Your task to perform on an android device: change keyboard looks Image 0: 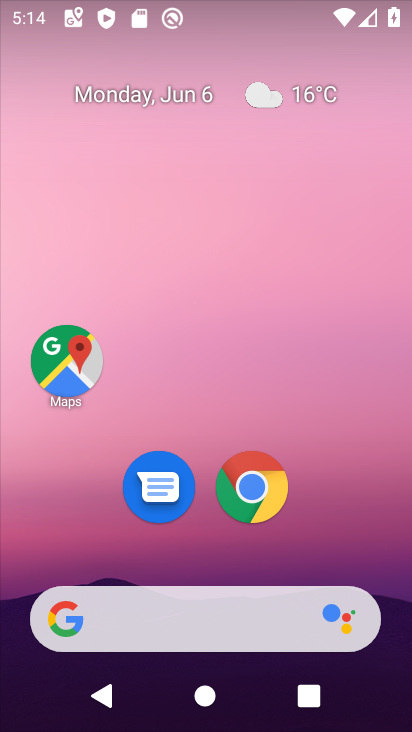
Step 0: drag from (324, 511) to (341, 10)
Your task to perform on an android device: change keyboard looks Image 1: 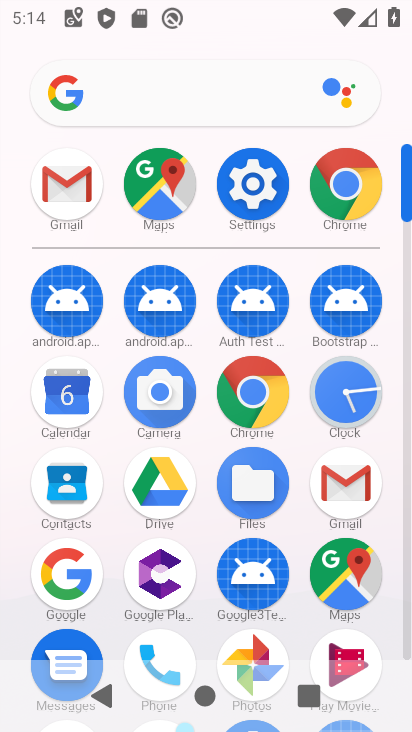
Step 1: click (245, 191)
Your task to perform on an android device: change keyboard looks Image 2: 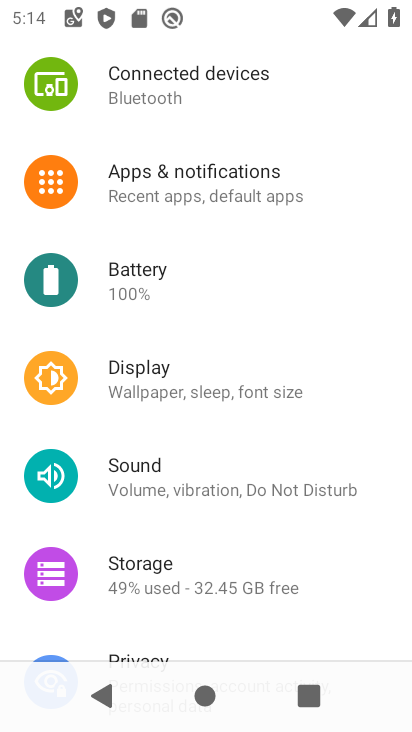
Step 2: drag from (229, 550) to (292, 19)
Your task to perform on an android device: change keyboard looks Image 3: 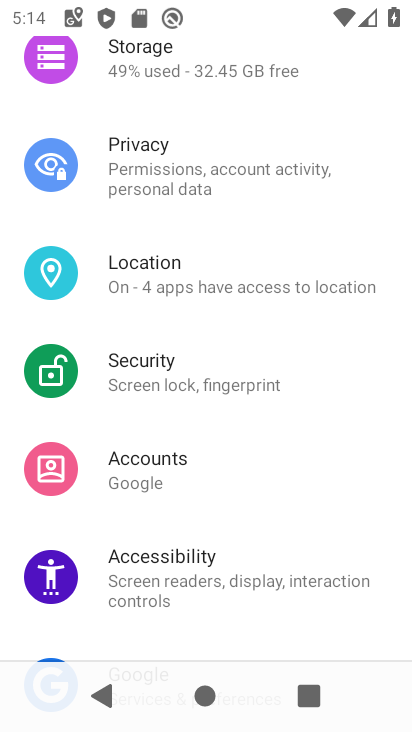
Step 3: drag from (208, 438) to (258, 17)
Your task to perform on an android device: change keyboard looks Image 4: 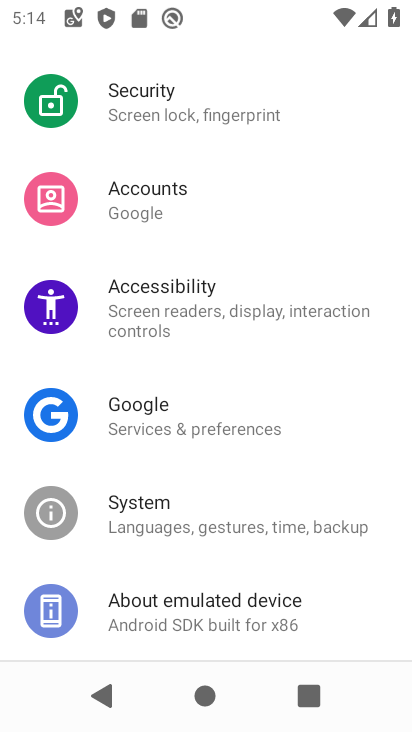
Step 4: click (225, 529)
Your task to perform on an android device: change keyboard looks Image 5: 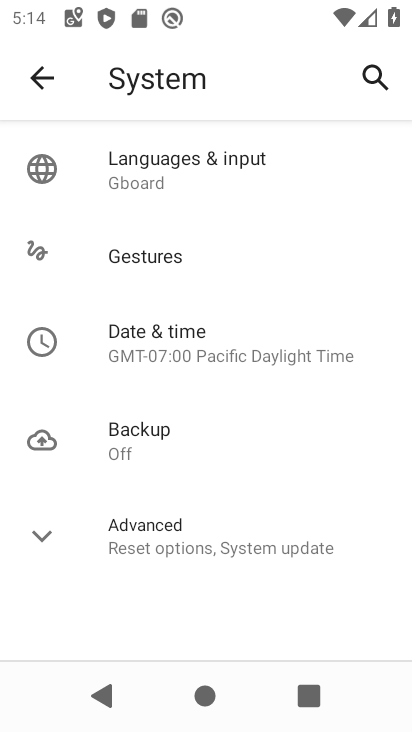
Step 5: click (201, 173)
Your task to perform on an android device: change keyboard looks Image 6: 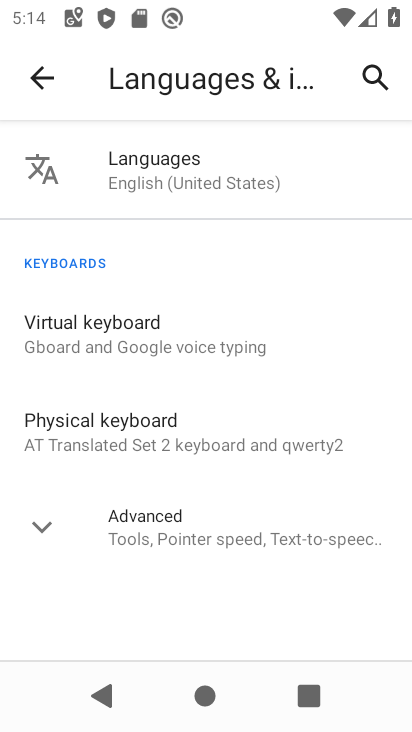
Step 6: click (129, 325)
Your task to perform on an android device: change keyboard looks Image 7: 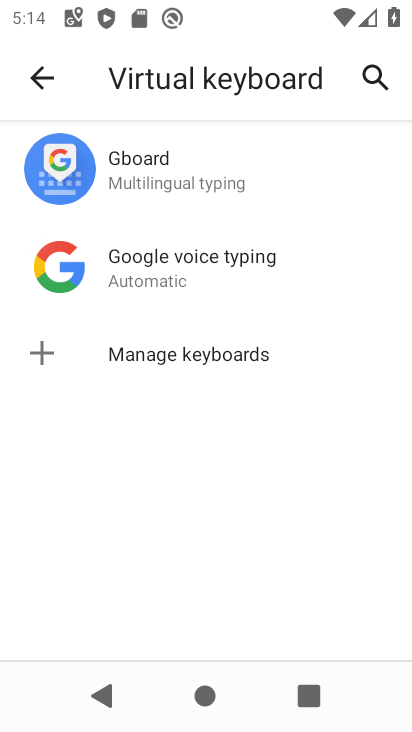
Step 7: click (148, 173)
Your task to perform on an android device: change keyboard looks Image 8: 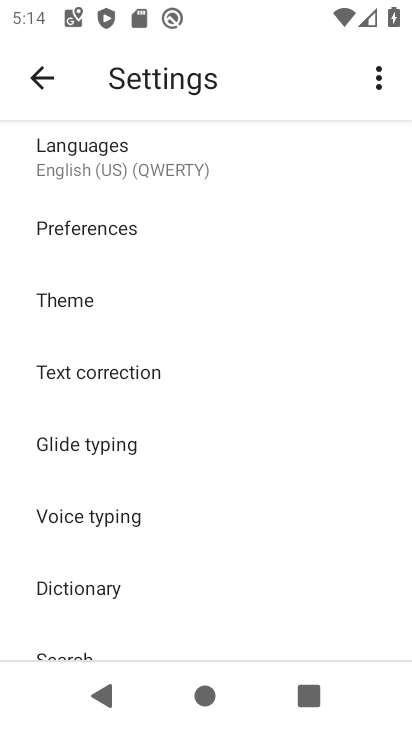
Step 8: click (132, 300)
Your task to perform on an android device: change keyboard looks Image 9: 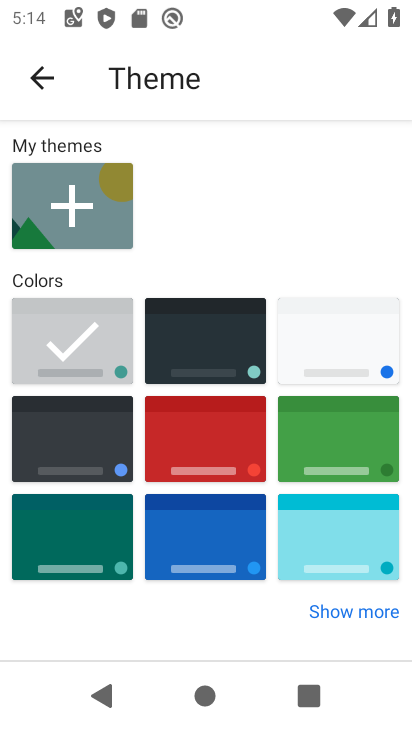
Step 9: click (191, 433)
Your task to perform on an android device: change keyboard looks Image 10: 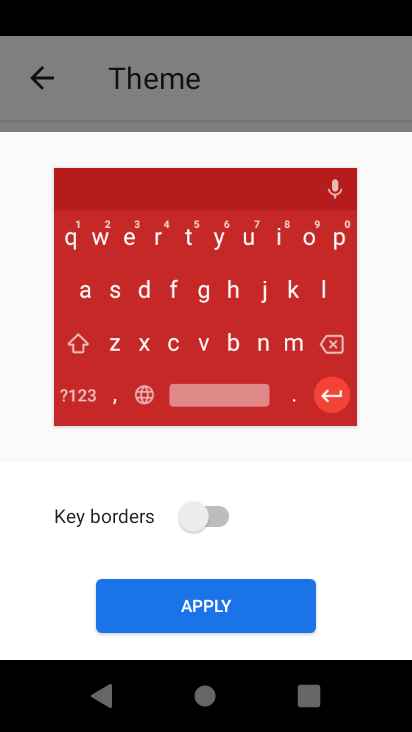
Step 10: click (206, 511)
Your task to perform on an android device: change keyboard looks Image 11: 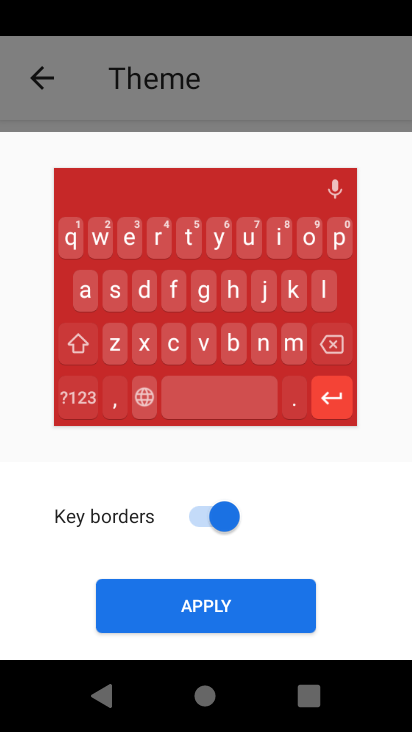
Step 11: click (222, 610)
Your task to perform on an android device: change keyboard looks Image 12: 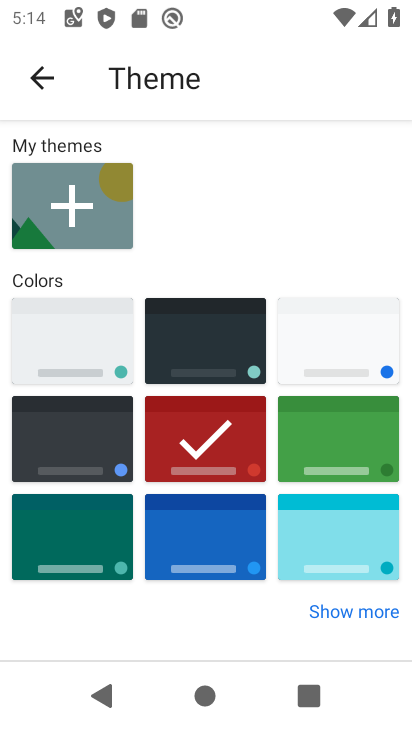
Step 12: task complete